Your task to perform on an android device: Show me productivity apps on the Play Store Image 0: 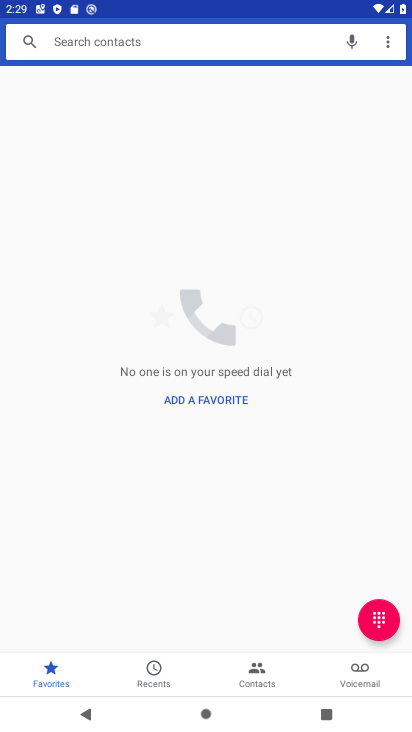
Step 0: press home button
Your task to perform on an android device: Show me productivity apps on the Play Store Image 1: 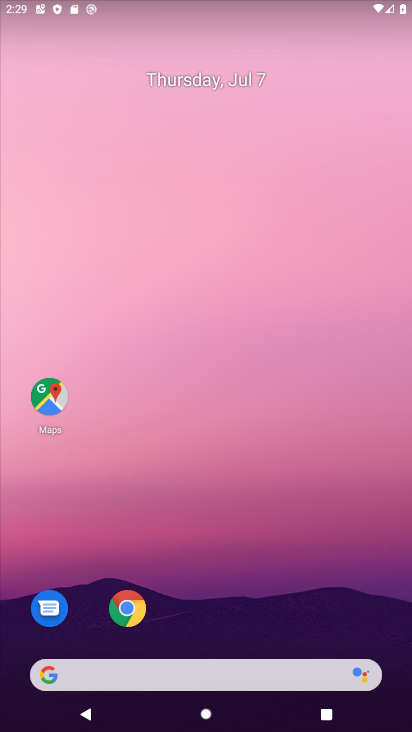
Step 1: drag from (403, 682) to (314, 78)
Your task to perform on an android device: Show me productivity apps on the Play Store Image 2: 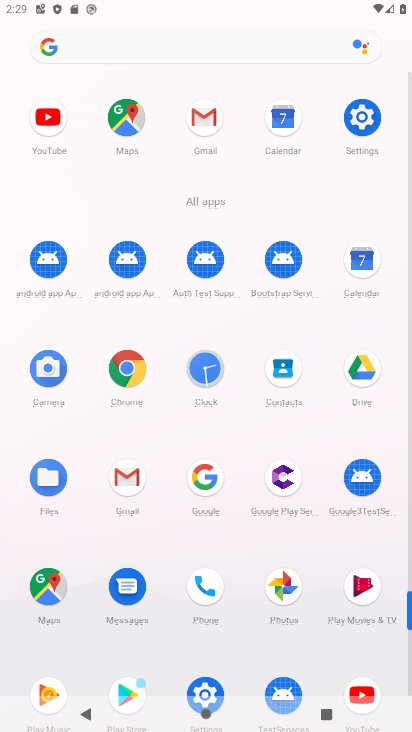
Step 2: click (409, 677)
Your task to perform on an android device: Show me productivity apps on the Play Store Image 3: 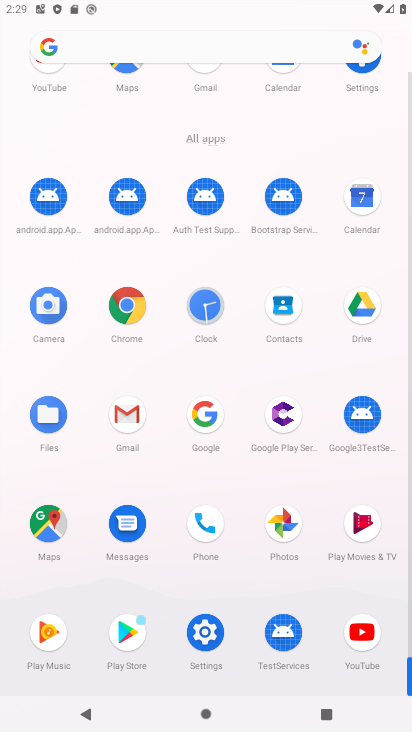
Step 3: click (132, 633)
Your task to perform on an android device: Show me productivity apps on the Play Store Image 4: 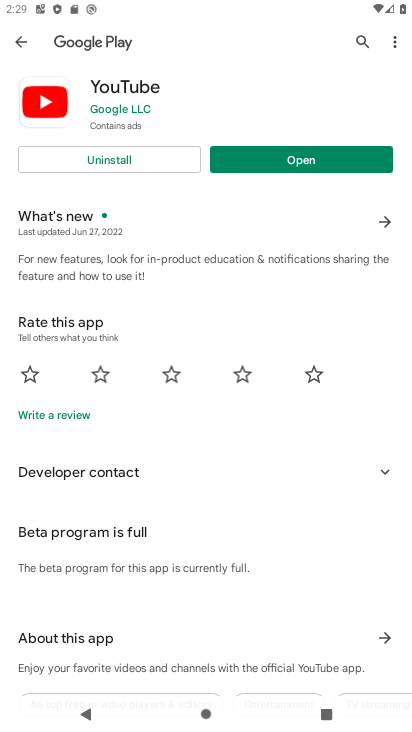
Step 4: press back button
Your task to perform on an android device: Show me productivity apps on the Play Store Image 5: 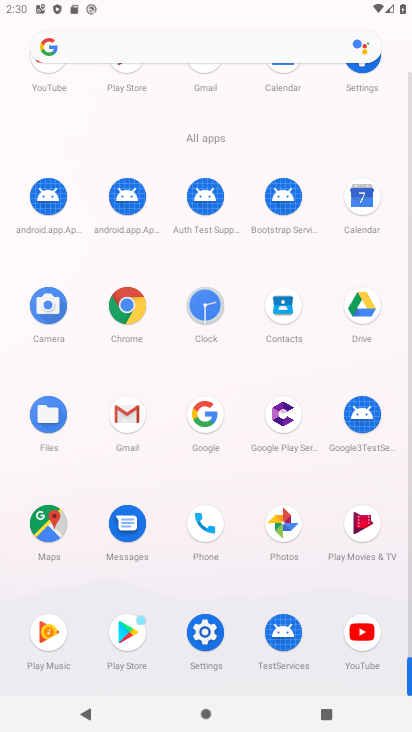
Step 5: click (129, 627)
Your task to perform on an android device: Show me productivity apps on the Play Store Image 6: 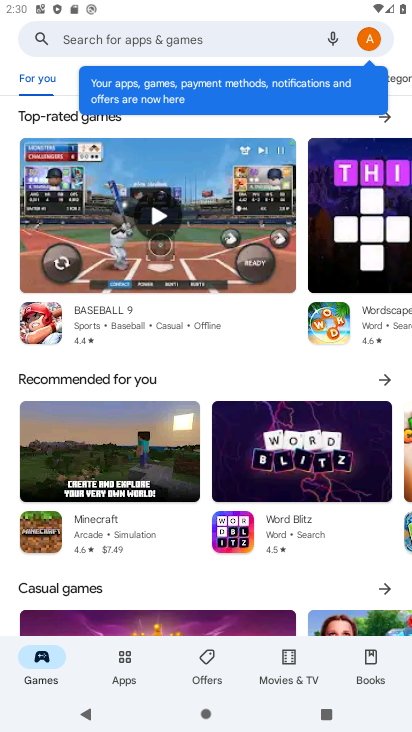
Step 6: click (126, 666)
Your task to perform on an android device: Show me productivity apps on the Play Store Image 7: 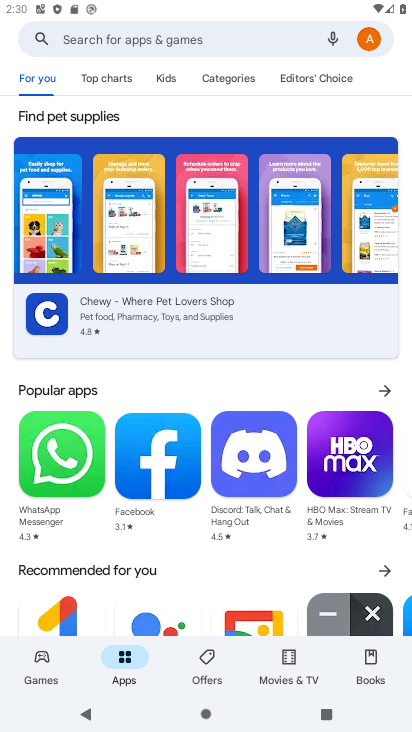
Step 7: click (231, 84)
Your task to perform on an android device: Show me productivity apps on the Play Store Image 8: 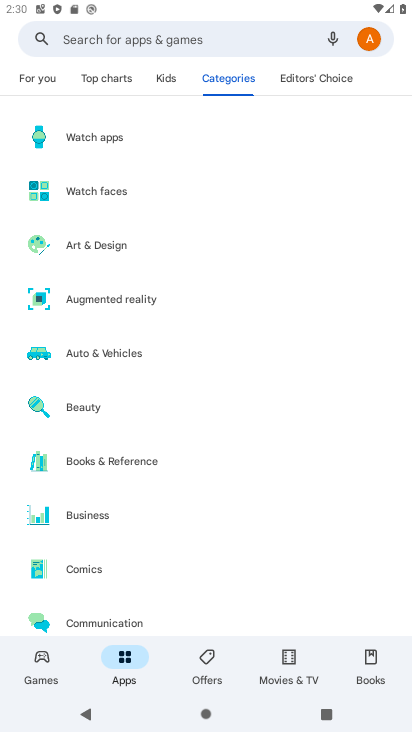
Step 8: drag from (174, 567) to (223, 147)
Your task to perform on an android device: Show me productivity apps on the Play Store Image 9: 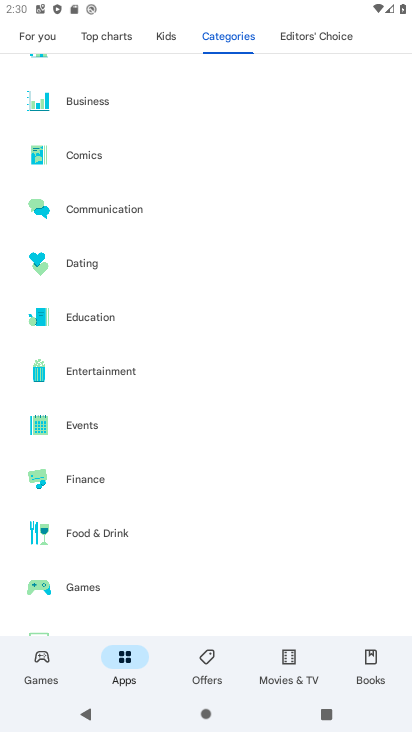
Step 9: drag from (192, 604) to (217, 107)
Your task to perform on an android device: Show me productivity apps on the Play Store Image 10: 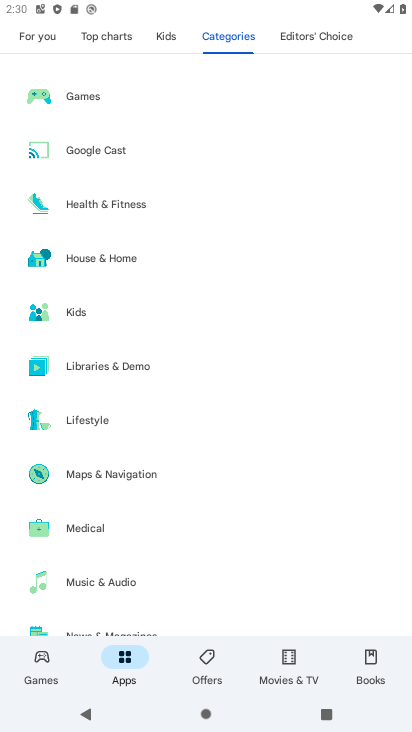
Step 10: drag from (199, 594) to (238, 215)
Your task to perform on an android device: Show me productivity apps on the Play Store Image 11: 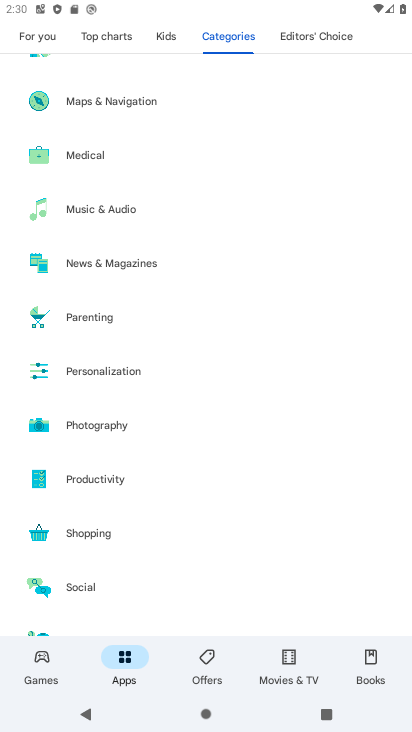
Step 11: click (91, 477)
Your task to perform on an android device: Show me productivity apps on the Play Store Image 12: 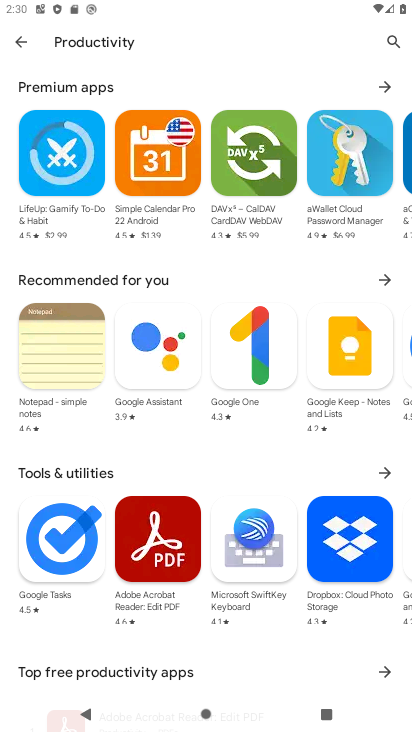
Step 12: task complete